Your task to perform on an android device: Open accessibility settings Image 0: 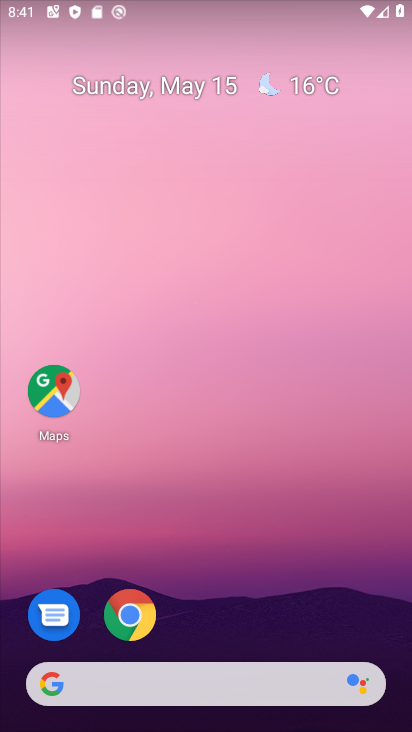
Step 0: drag from (292, 594) to (269, 0)
Your task to perform on an android device: Open accessibility settings Image 1: 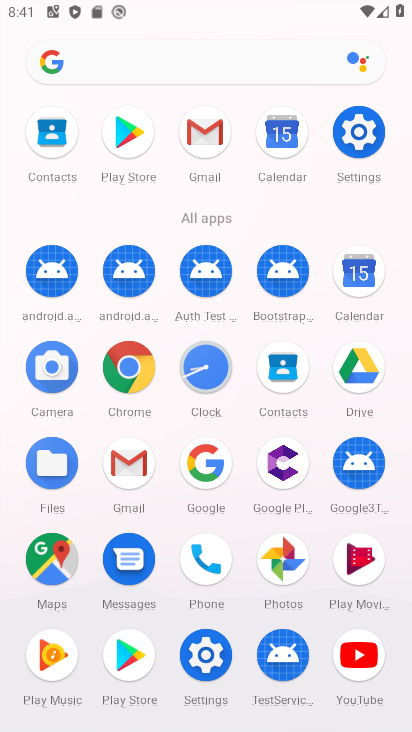
Step 1: click (367, 140)
Your task to perform on an android device: Open accessibility settings Image 2: 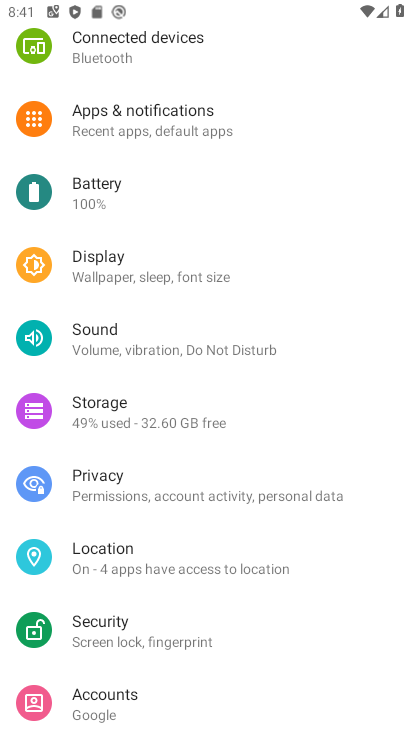
Step 2: drag from (232, 658) to (206, 305)
Your task to perform on an android device: Open accessibility settings Image 3: 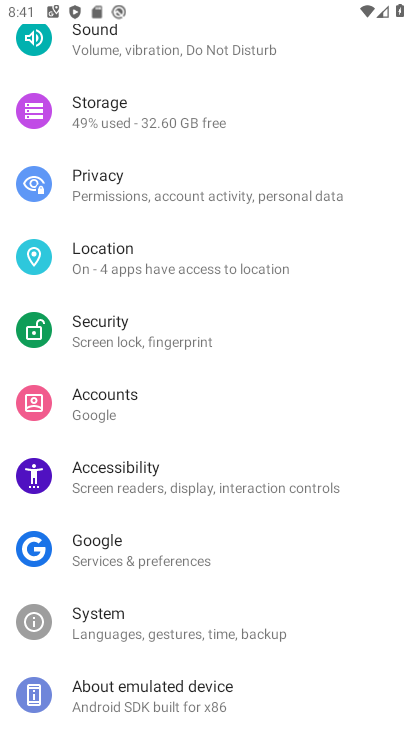
Step 3: click (90, 486)
Your task to perform on an android device: Open accessibility settings Image 4: 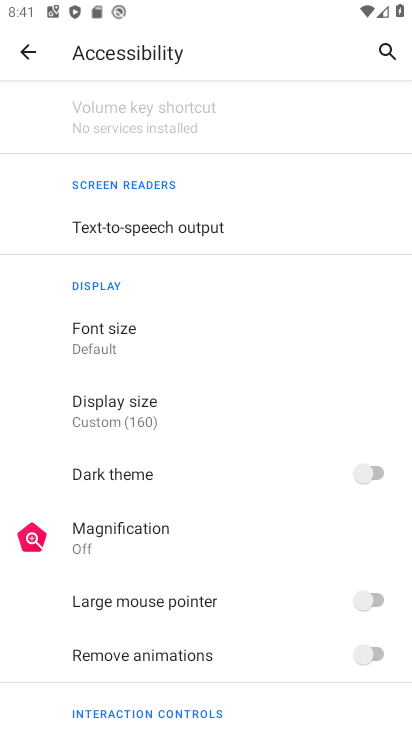
Step 4: task complete